Your task to perform on an android device: set the timer Image 0: 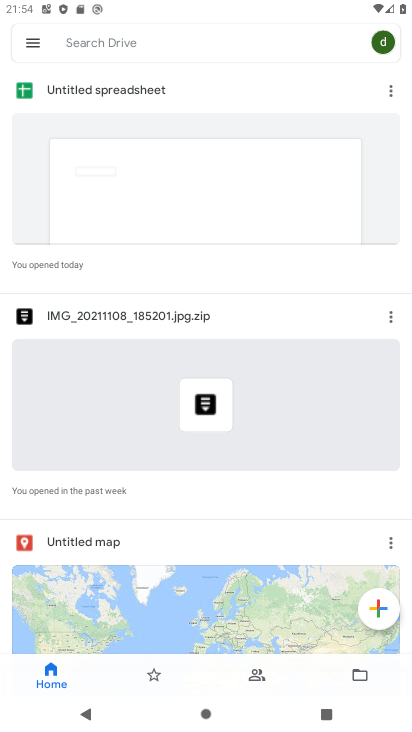
Step 0: press home button
Your task to perform on an android device: set the timer Image 1: 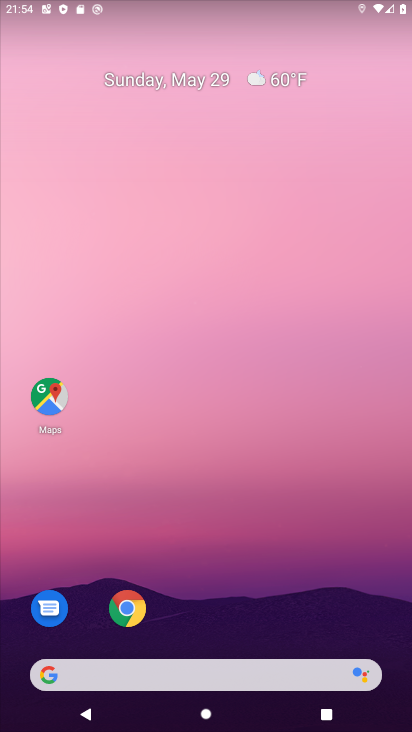
Step 1: drag from (372, 582) to (363, 81)
Your task to perform on an android device: set the timer Image 2: 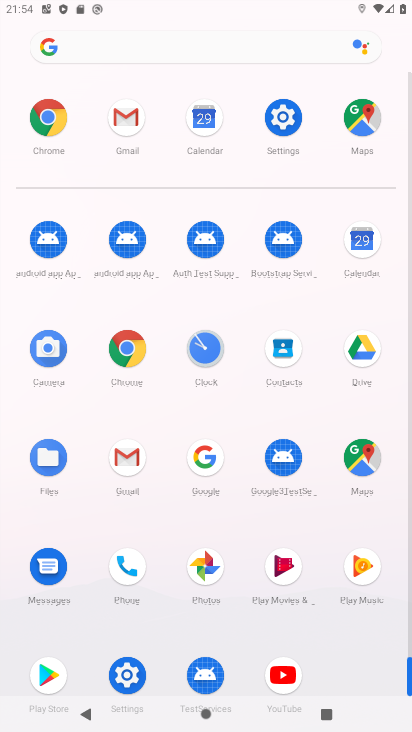
Step 2: click (211, 362)
Your task to perform on an android device: set the timer Image 3: 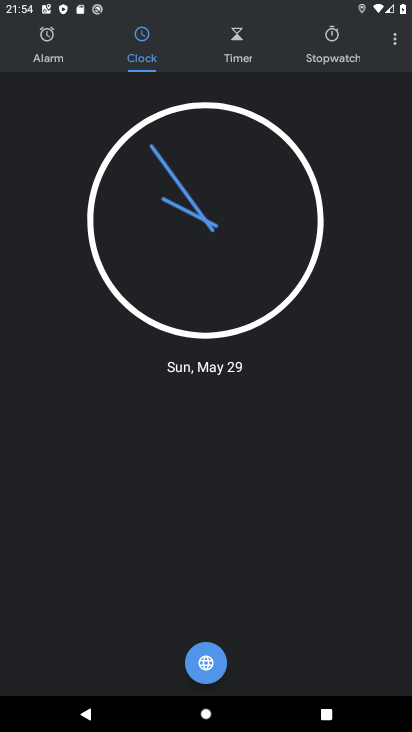
Step 3: click (244, 60)
Your task to perform on an android device: set the timer Image 4: 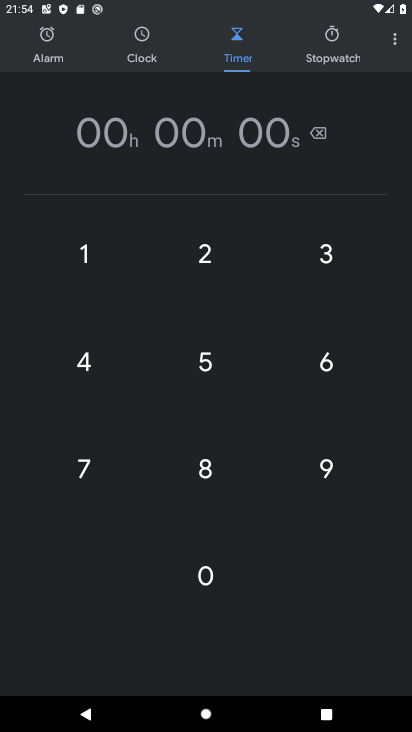
Step 4: click (209, 374)
Your task to perform on an android device: set the timer Image 5: 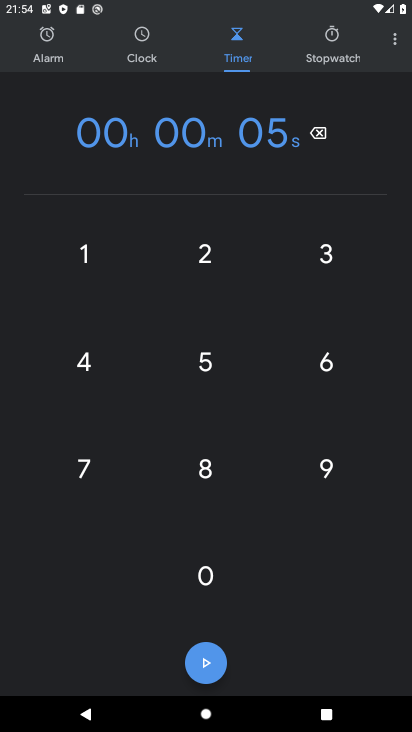
Step 5: task complete